Your task to perform on an android device: Play the last video I watched on Youtube Image 0: 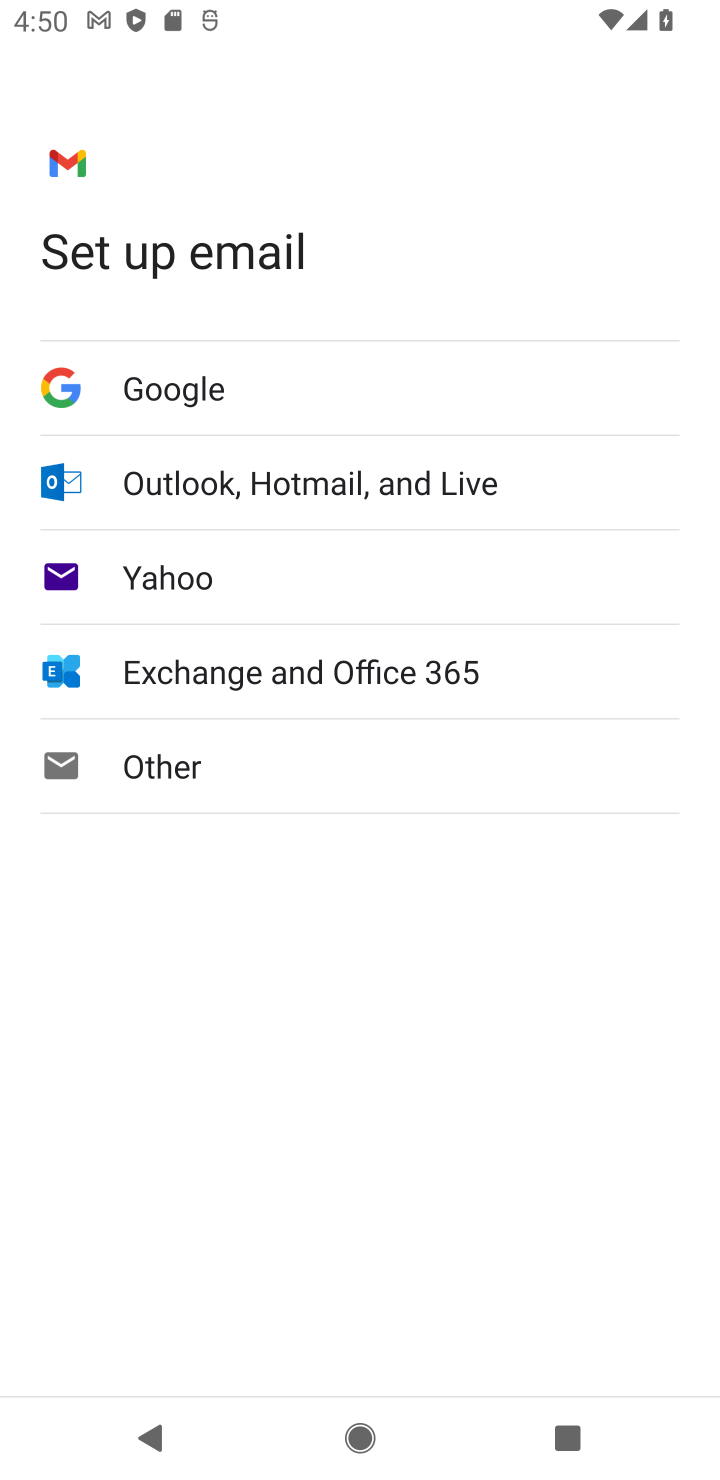
Step 0: press home button
Your task to perform on an android device: Play the last video I watched on Youtube Image 1: 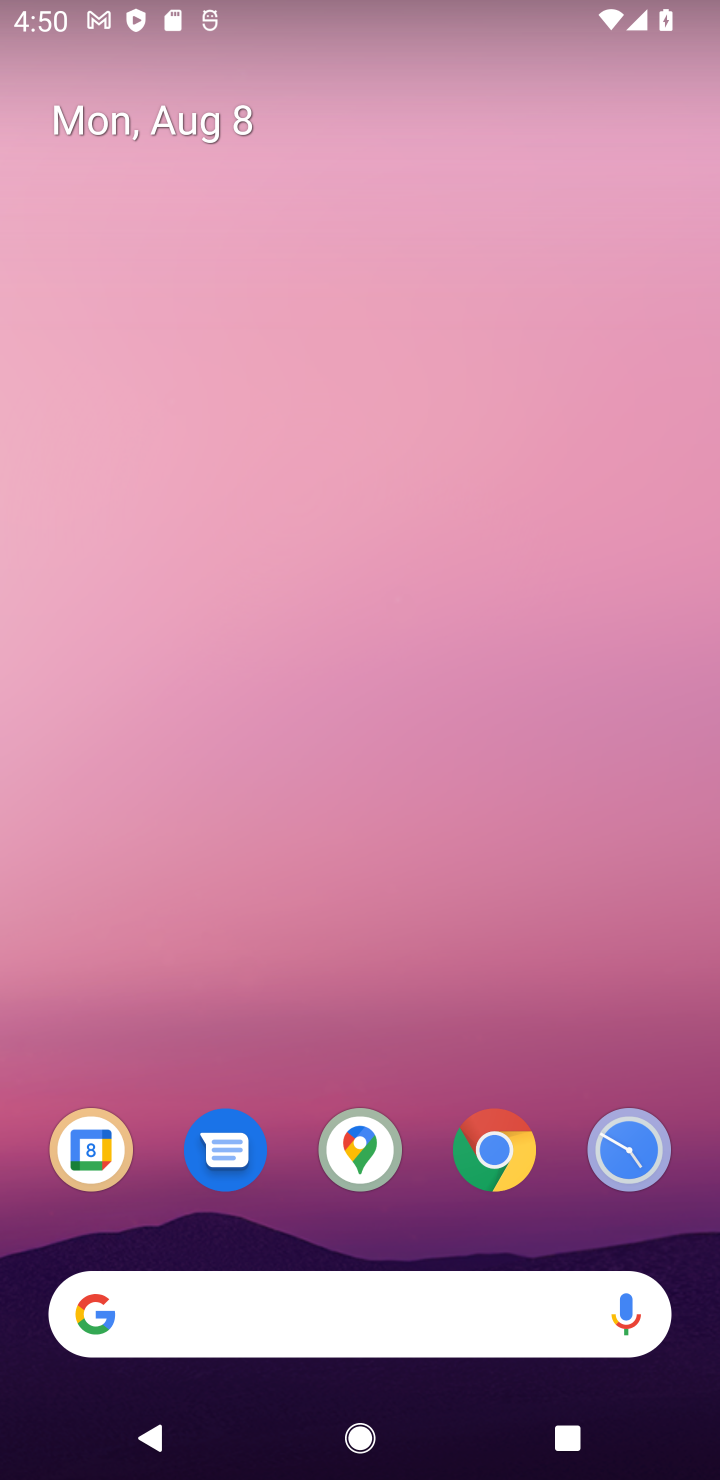
Step 1: drag from (392, 1233) to (33, 406)
Your task to perform on an android device: Play the last video I watched on Youtube Image 2: 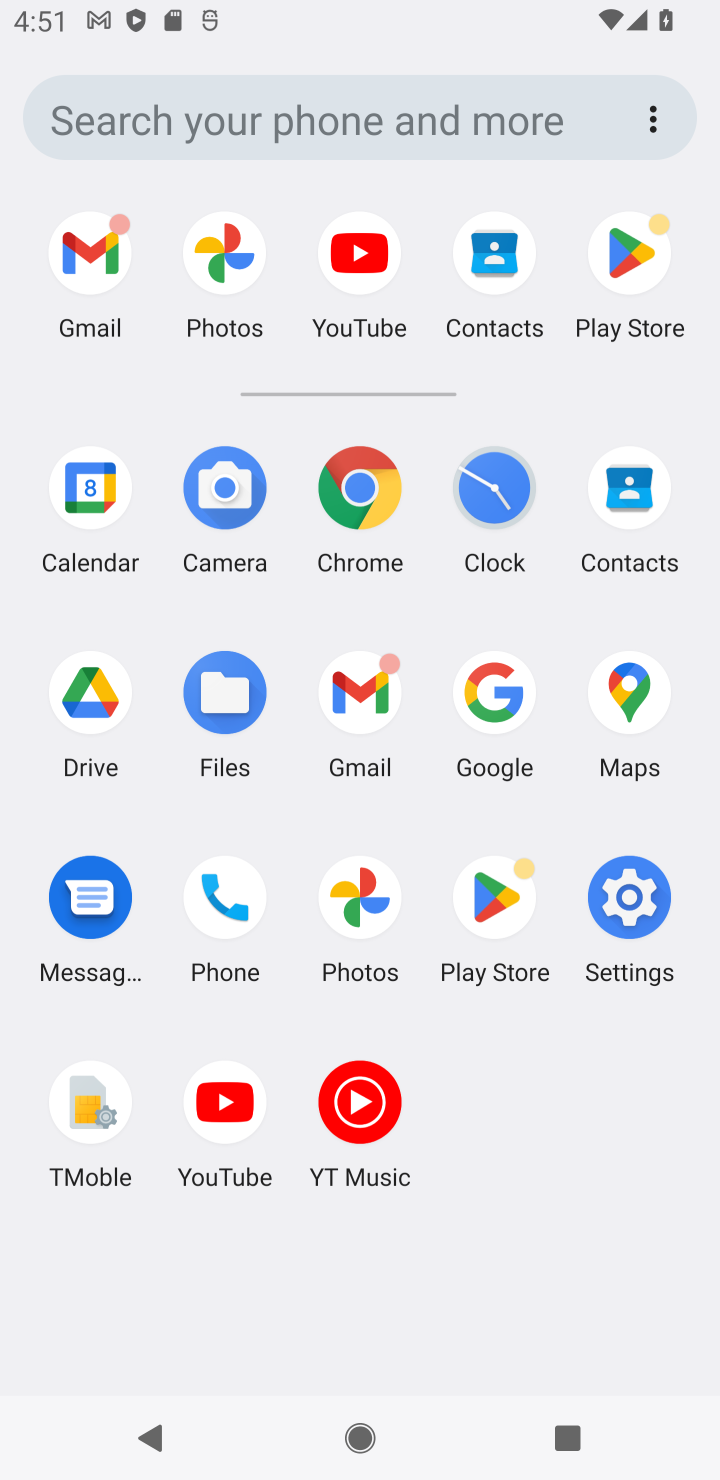
Step 2: click (213, 1102)
Your task to perform on an android device: Play the last video I watched on Youtube Image 3: 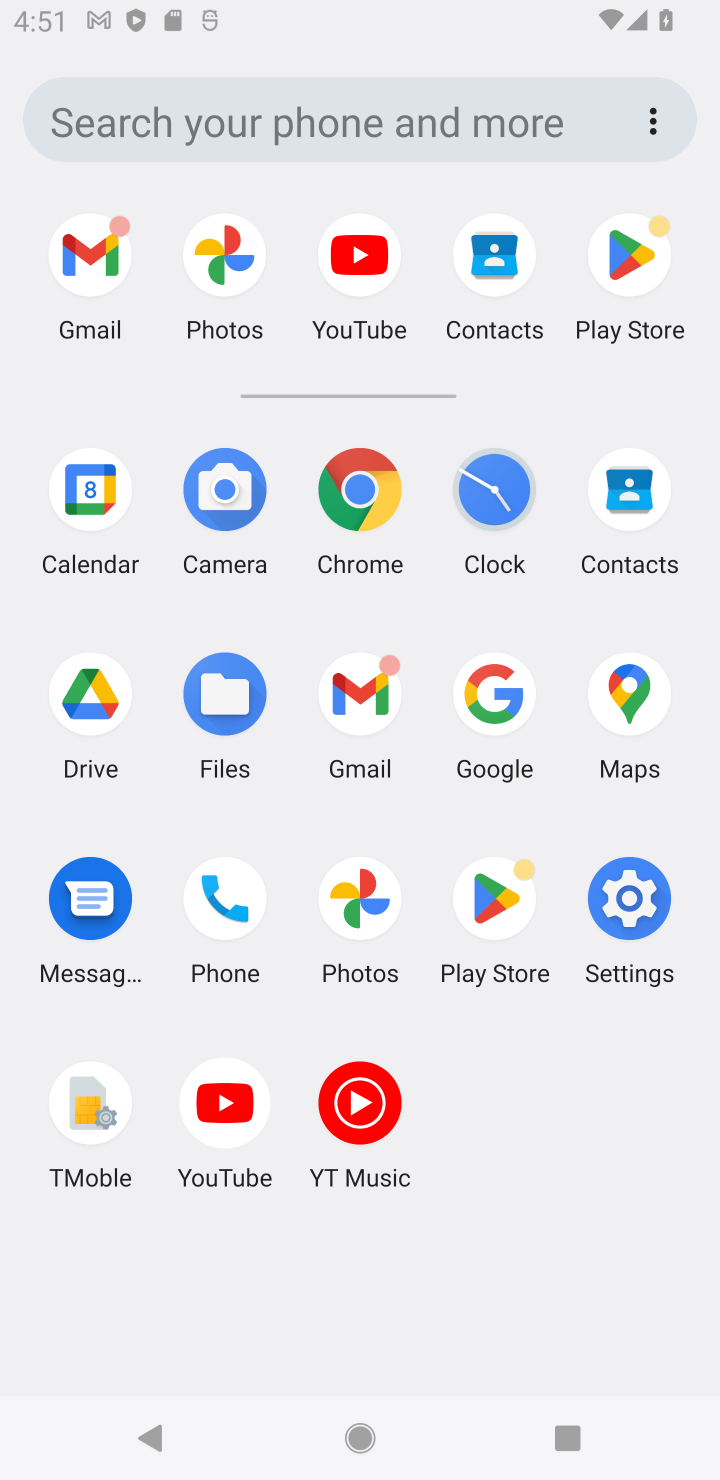
Step 3: task complete